Your task to perform on an android device: turn on the 24-hour format for clock Image 0: 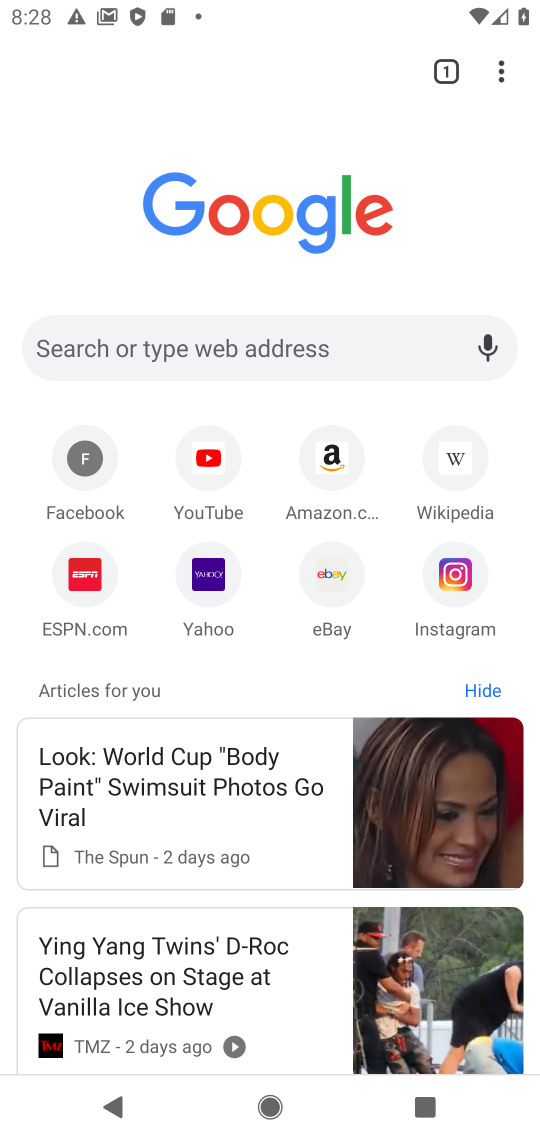
Step 0: press home button
Your task to perform on an android device: turn on the 24-hour format for clock Image 1: 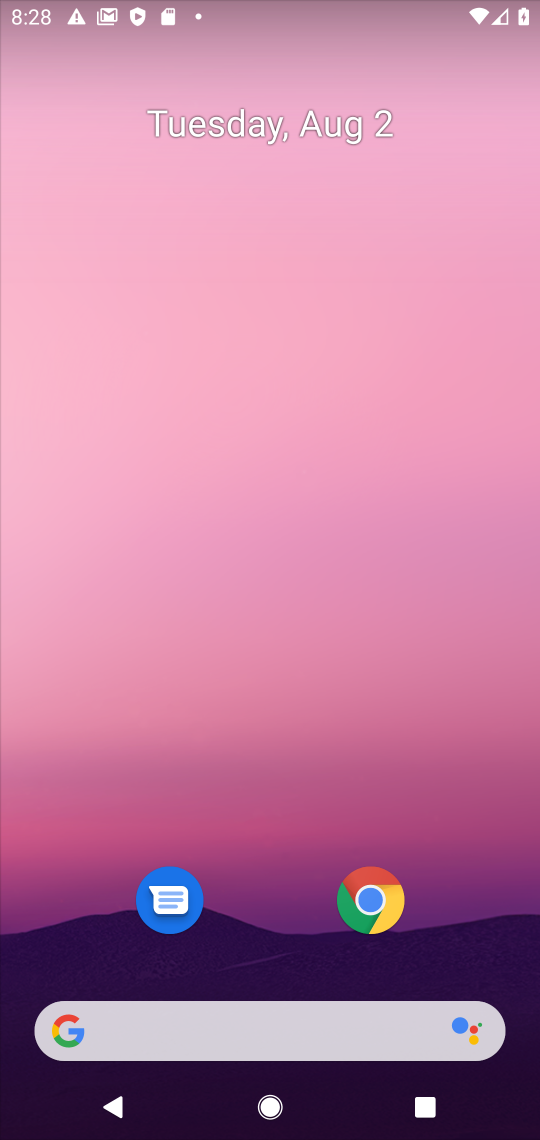
Step 1: drag from (250, 800) to (330, 0)
Your task to perform on an android device: turn on the 24-hour format for clock Image 2: 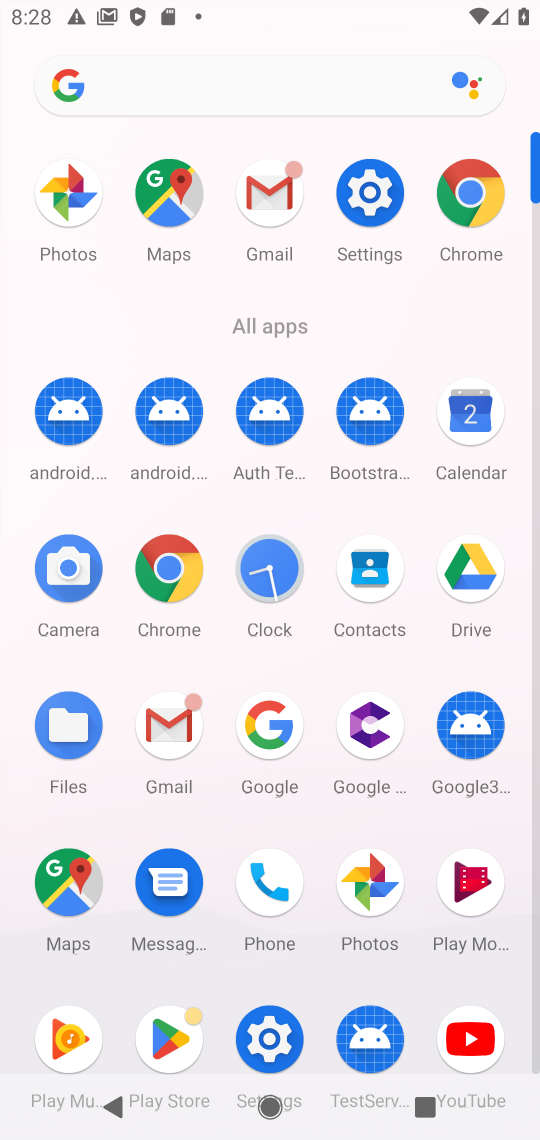
Step 2: click (279, 552)
Your task to perform on an android device: turn on the 24-hour format for clock Image 3: 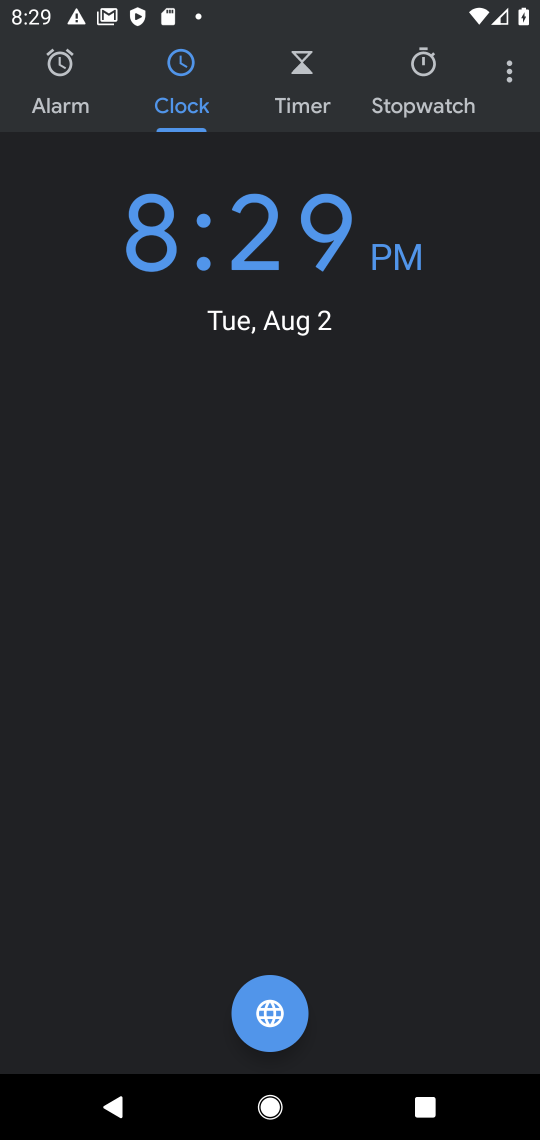
Step 3: click (510, 80)
Your task to perform on an android device: turn on the 24-hour format for clock Image 4: 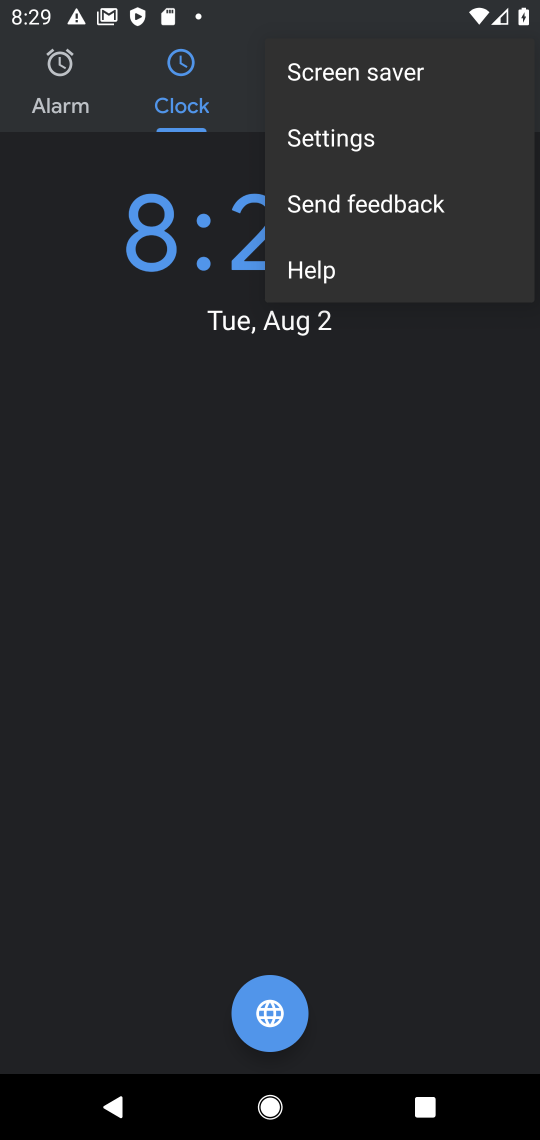
Step 4: click (395, 140)
Your task to perform on an android device: turn on the 24-hour format for clock Image 5: 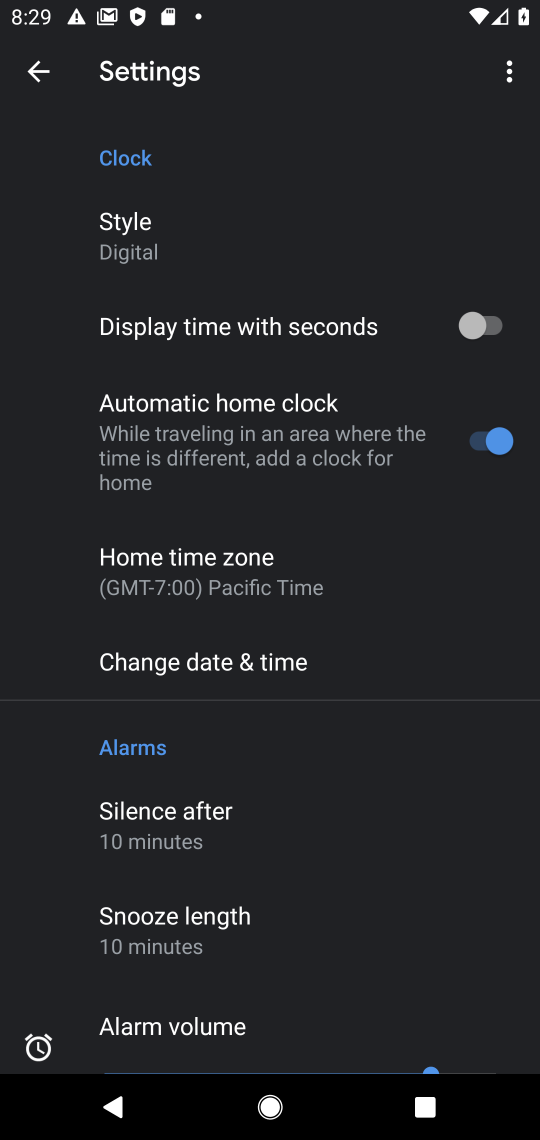
Step 5: click (301, 663)
Your task to perform on an android device: turn on the 24-hour format for clock Image 6: 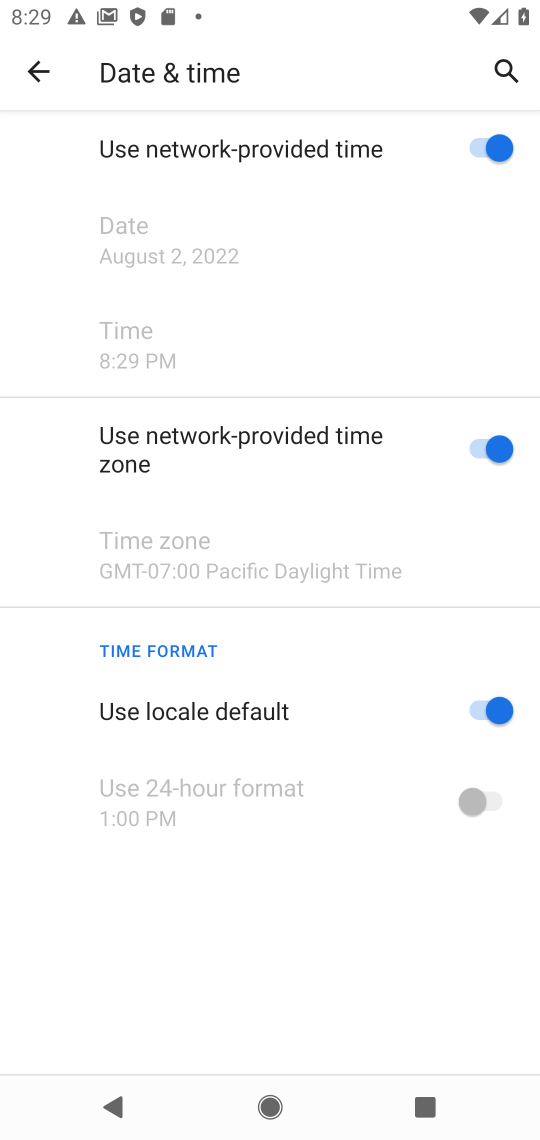
Step 6: click (476, 708)
Your task to perform on an android device: turn on the 24-hour format for clock Image 7: 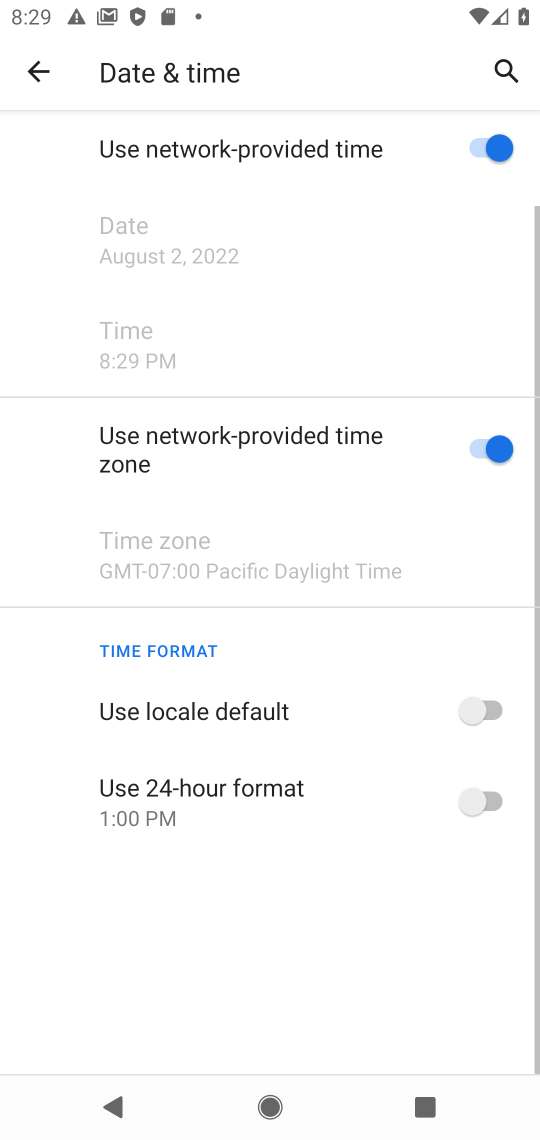
Step 7: click (488, 787)
Your task to perform on an android device: turn on the 24-hour format for clock Image 8: 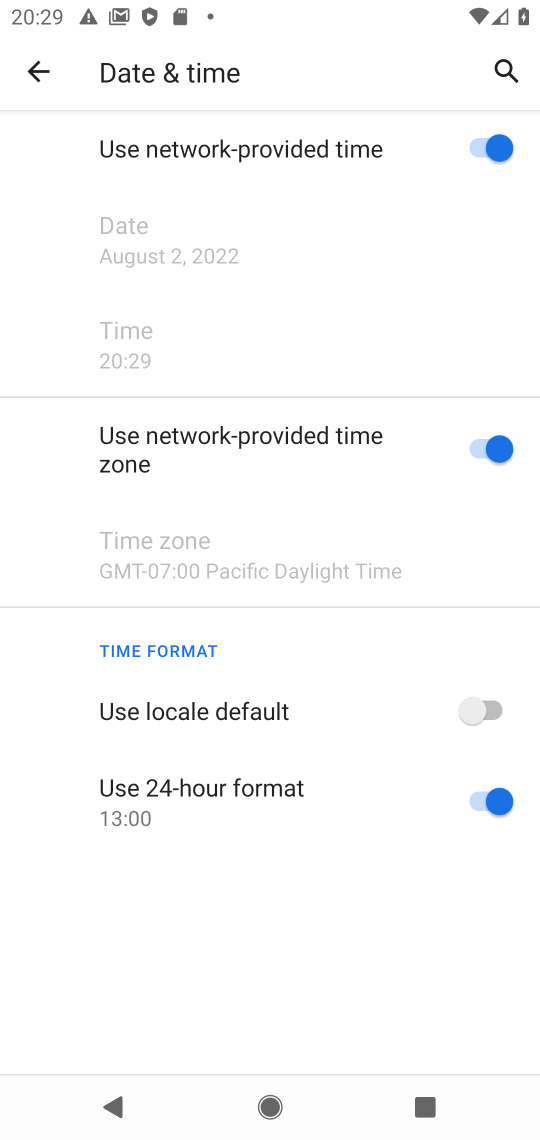
Step 8: task complete